Your task to perform on an android device: Open network settings Image 0: 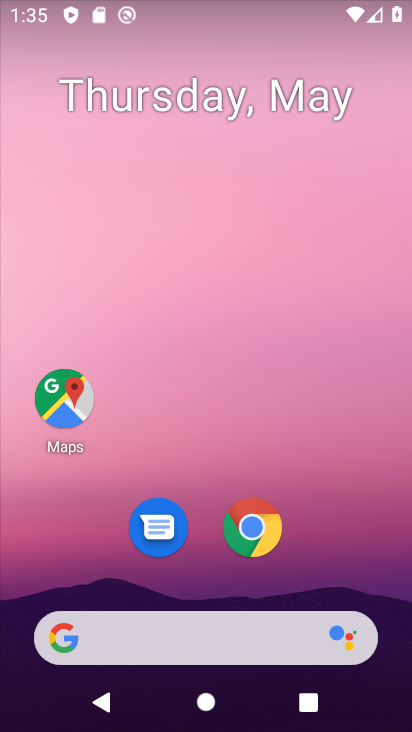
Step 0: click (235, 73)
Your task to perform on an android device: Open network settings Image 1: 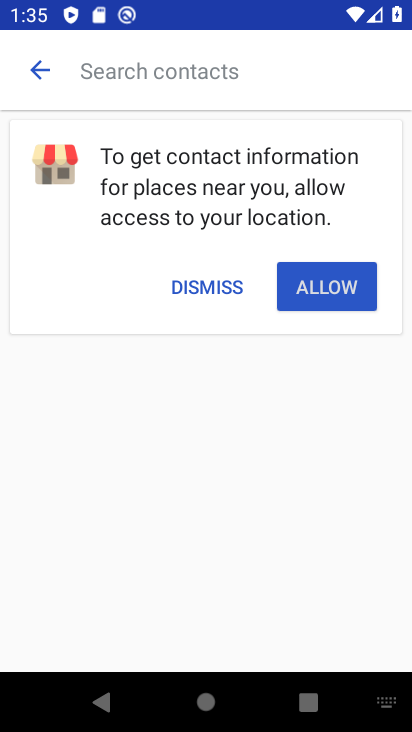
Step 1: press home button
Your task to perform on an android device: Open network settings Image 2: 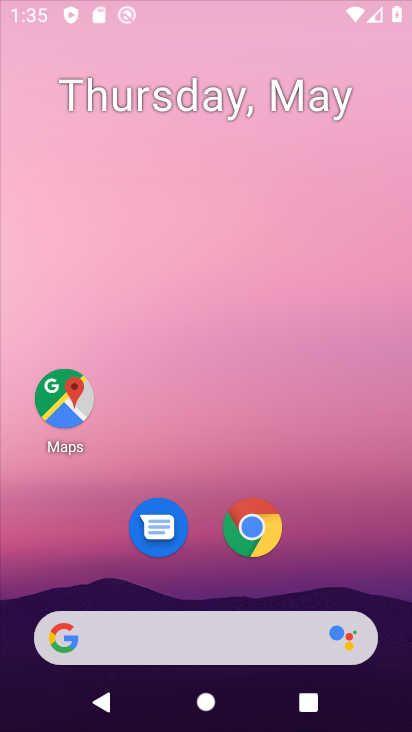
Step 2: drag from (219, 592) to (277, 85)
Your task to perform on an android device: Open network settings Image 3: 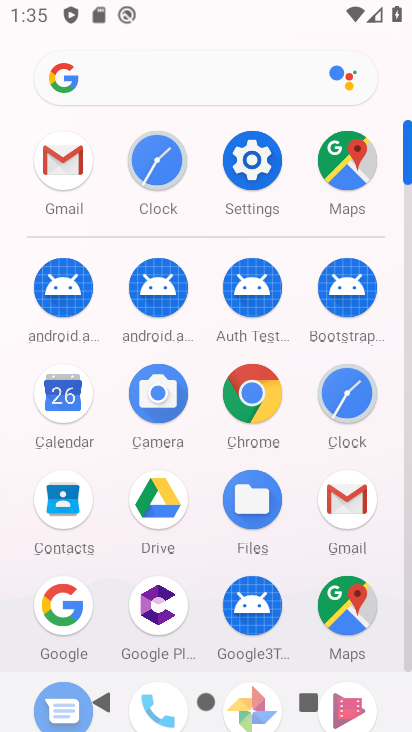
Step 3: click (255, 162)
Your task to perform on an android device: Open network settings Image 4: 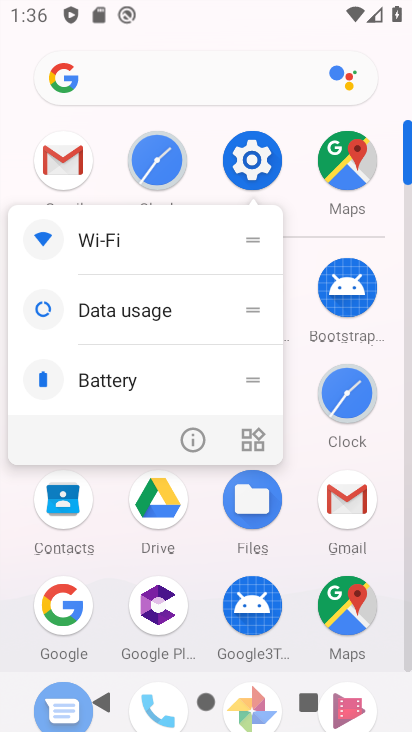
Step 4: click (192, 457)
Your task to perform on an android device: Open network settings Image 5: 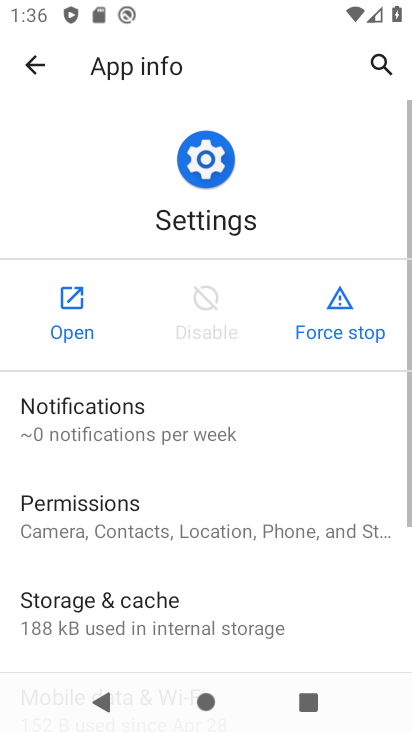
Step 5: click (77, 325)
Your task to perform on an android device: Open network settings Image 6: 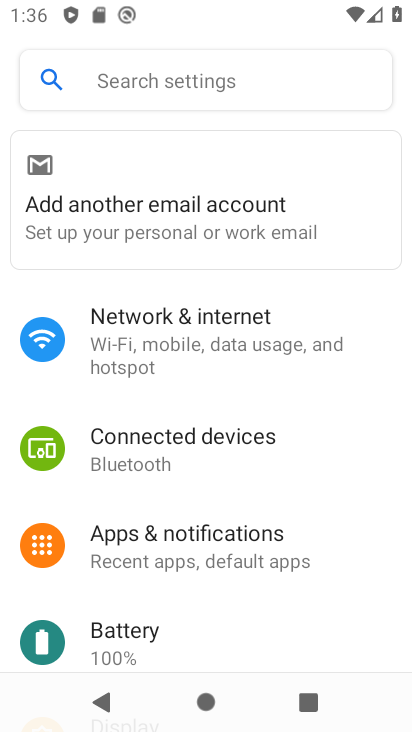
Step 6: click (175, 341)
Your task to perform on an android device: Open network settings Image 7: 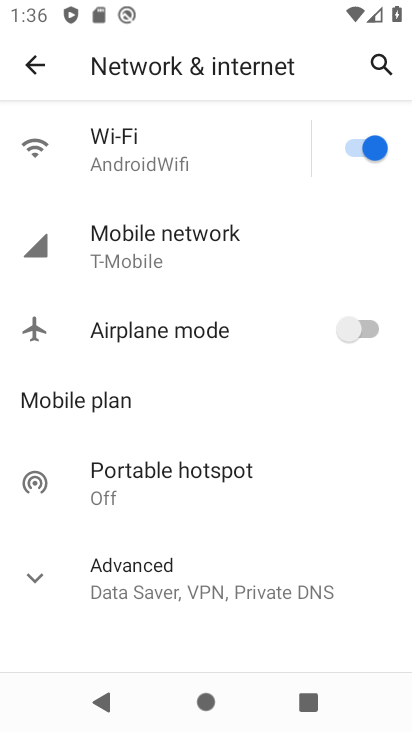
Step 7: click (177, 225)
Your task to perform on an android device: Open network settings Image 8: 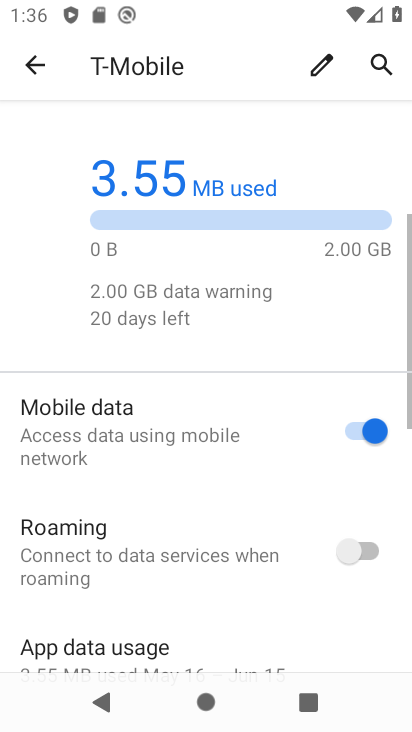
Step 8: task complete